Your task to perform on an android device: toggle airplane mode Image 0: 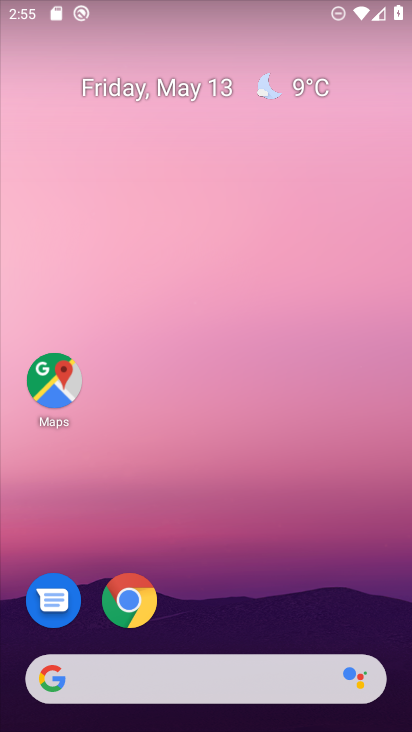
Step 0: drag from (205, 647) to (294, 165)
Your task to perform on an android device: toggle airplane mode Image 1: 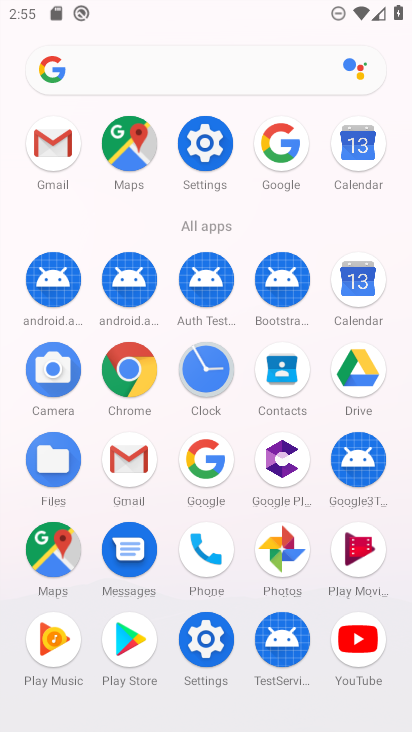
Step 1: click (225, 147)
Your task to perform on an android device: toggle airplane mode Image 2: 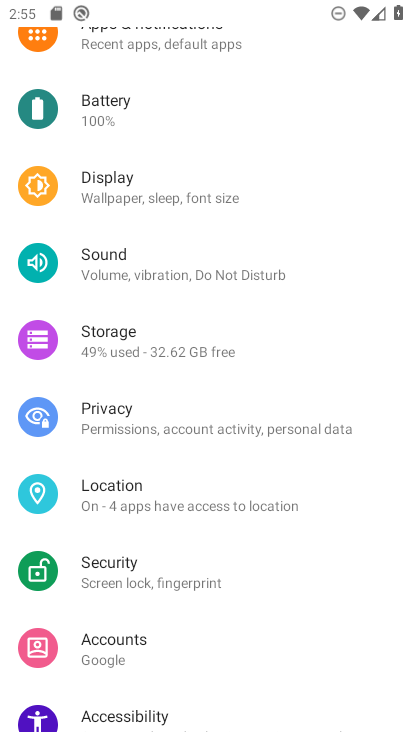
Step 2: drag from (175, 83) to (209, 542)
Your task to perform on an android device: toggle airplane mode Image 3: 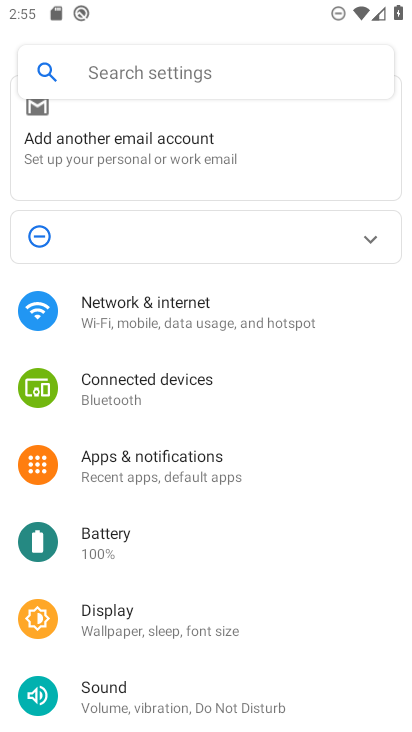
Step 3: click (140, 309)
Your task to perform on an android device: toggle airplane mode Image 4: 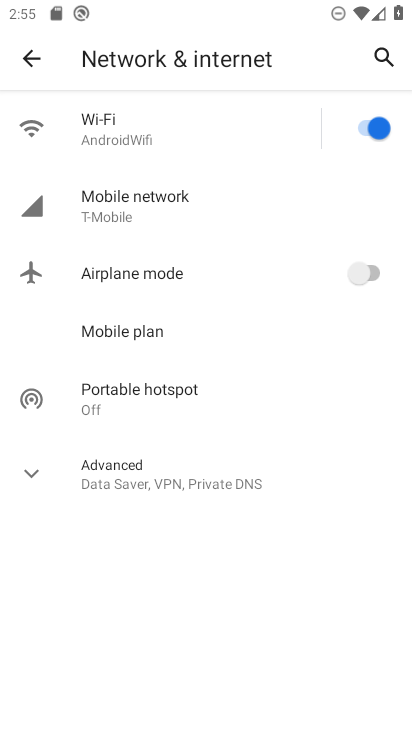
Step 4: click (374, 266)
Your task to perform on an android device: toggle airplane mode Image 5: 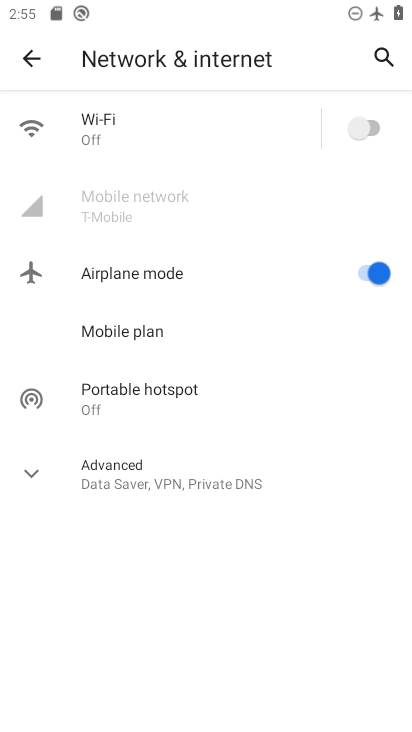
Step 5: task complete